Your task to perform on an android device: Open Reddit.com Image 0: 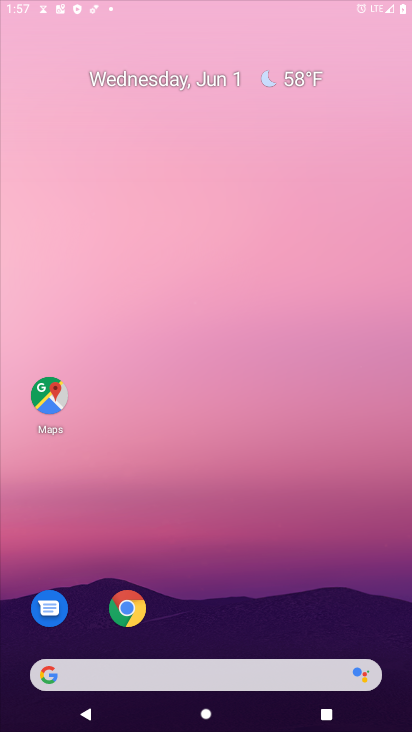
Step 0: drag from (269, 482) to (309, 101)
Your task to perform on an android device: Open Reddit.com Image 1: 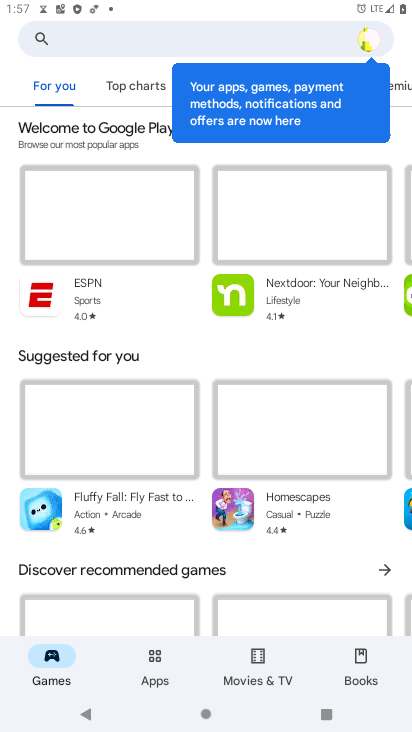
Step 1: press home button
Your task to perform on an android device: Open Reddit.com Image 2: 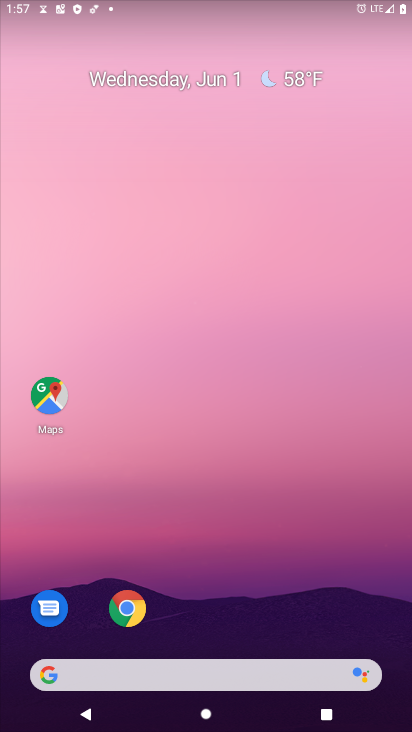
Step 2: click (124, 600)
Your task to perform on an android device: Open Reddit.com Image 3: 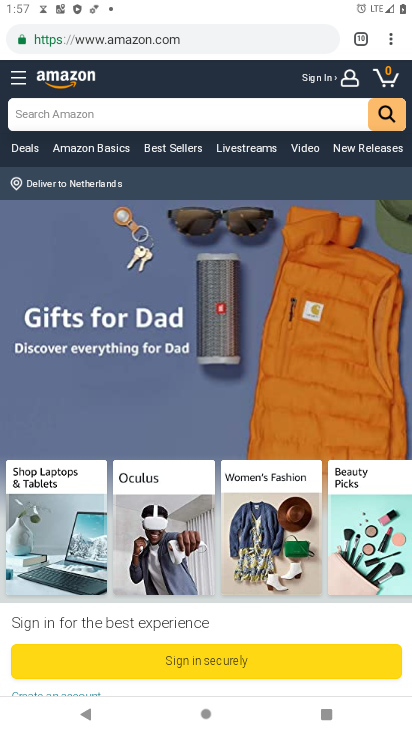
Step 3: click (360, 29)
Your task to perform on an android device: Open Reddit.com Image 4: 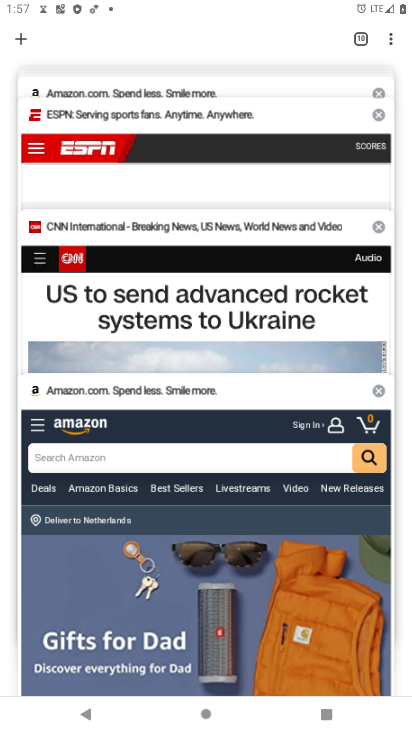
Step 4: drag from (233, 192) to (233, 600)
Your task to perform on an android device: Open Reddit.com Image 5: 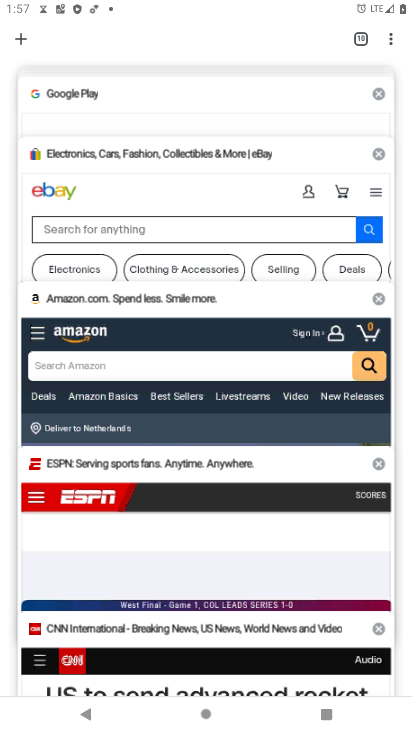
Step 5: drag from (326, 158) to (278, 712)
Your task to perform on an android device: Open Reddit.com Image 6: 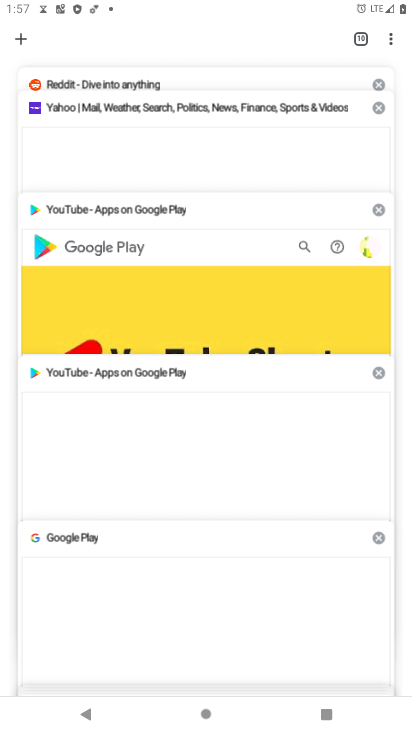
Step 6: drag from (284, 169) to (273, 520)
Your task to perform on an android device: Open Reddit.com Image 7: 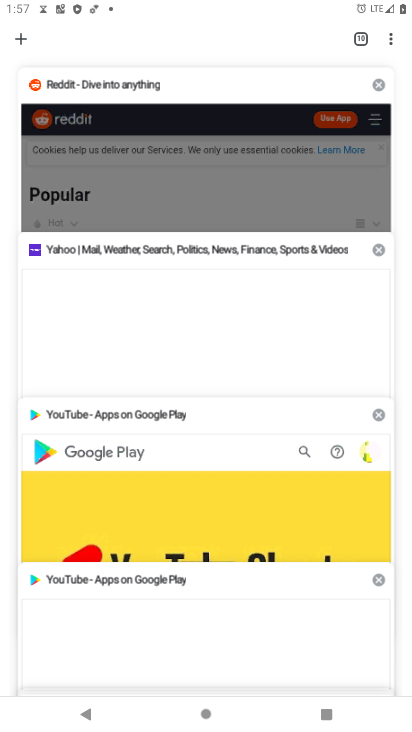
Step 7: click (272, 133)
Your task to perform on an android device: Open Reddit.com Image 8: 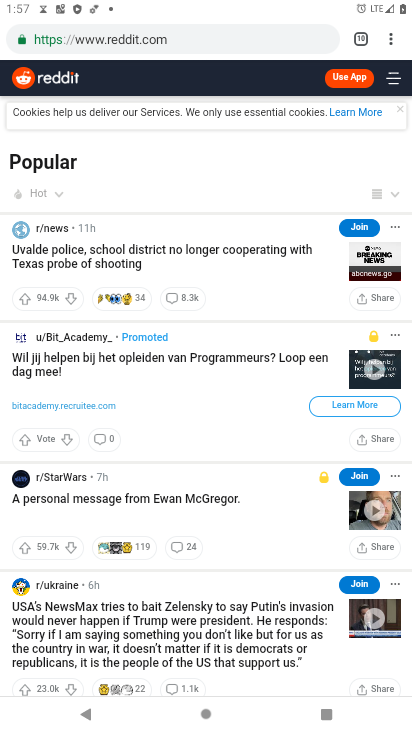
Step 8: task complete